Your task to perform on an android device: Open my contact list Image 0: 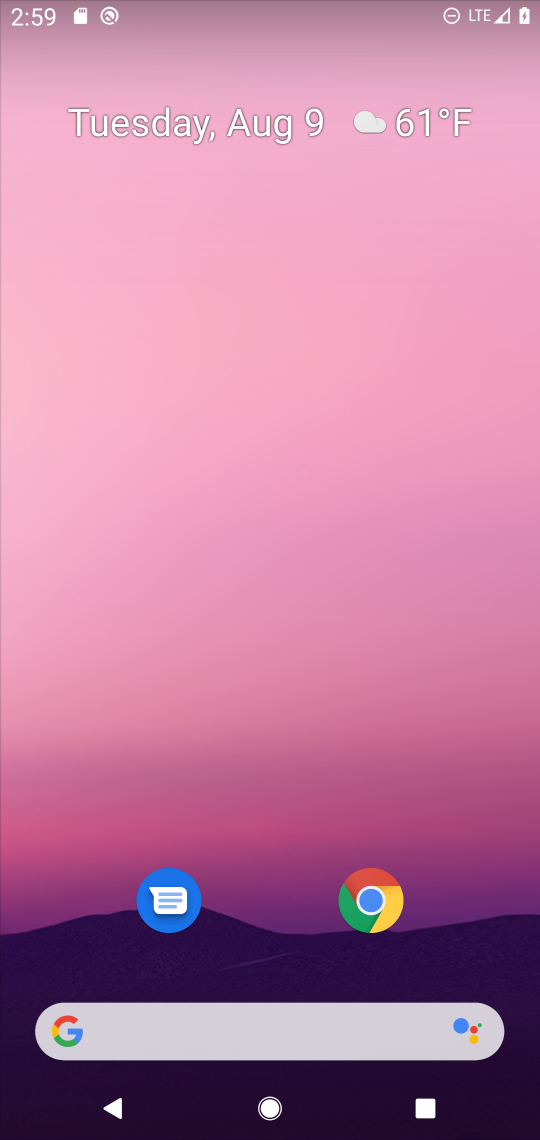
Step 0: press home button
Your task to perform on an android device: Open my contact list Image 1: 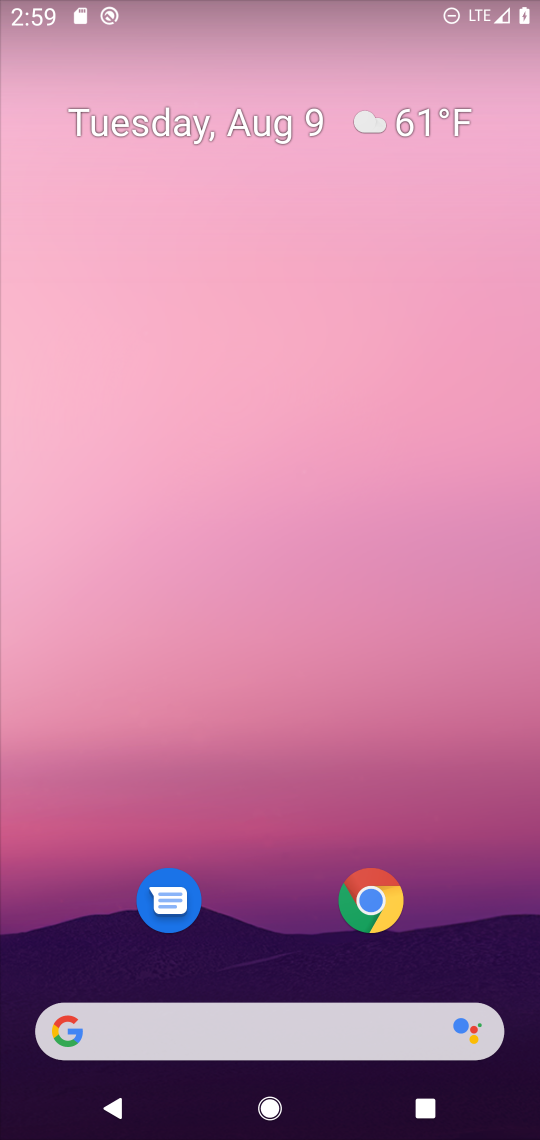
Step 1: drag from (481, 791) to (492, 204)
Your task to perform on an android device: Open my contact list Image 2: 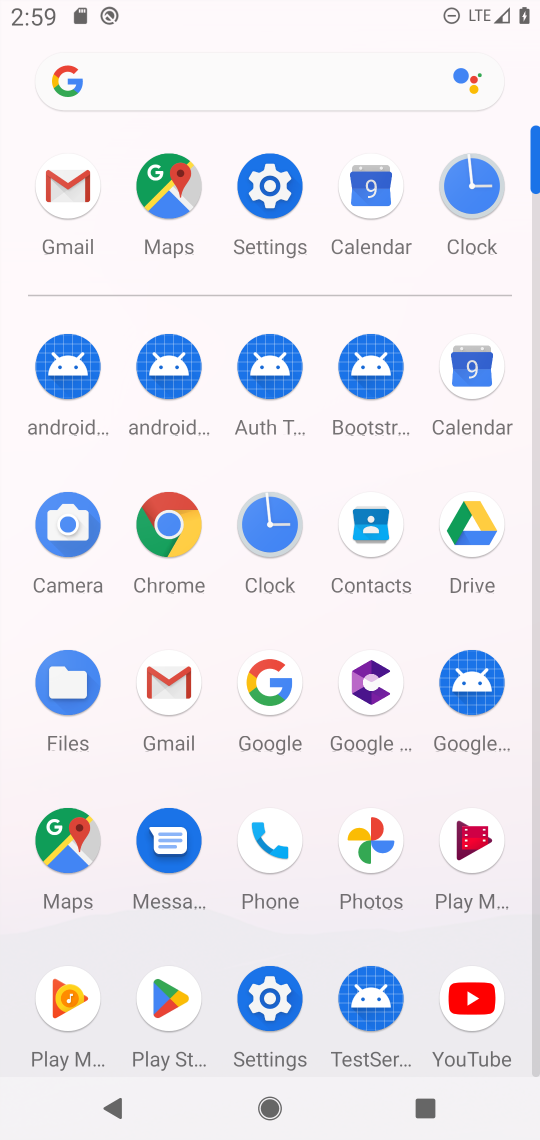
Step 2: click (366, 519)
Your task to perform on an android device: Open my contact list Image 3: 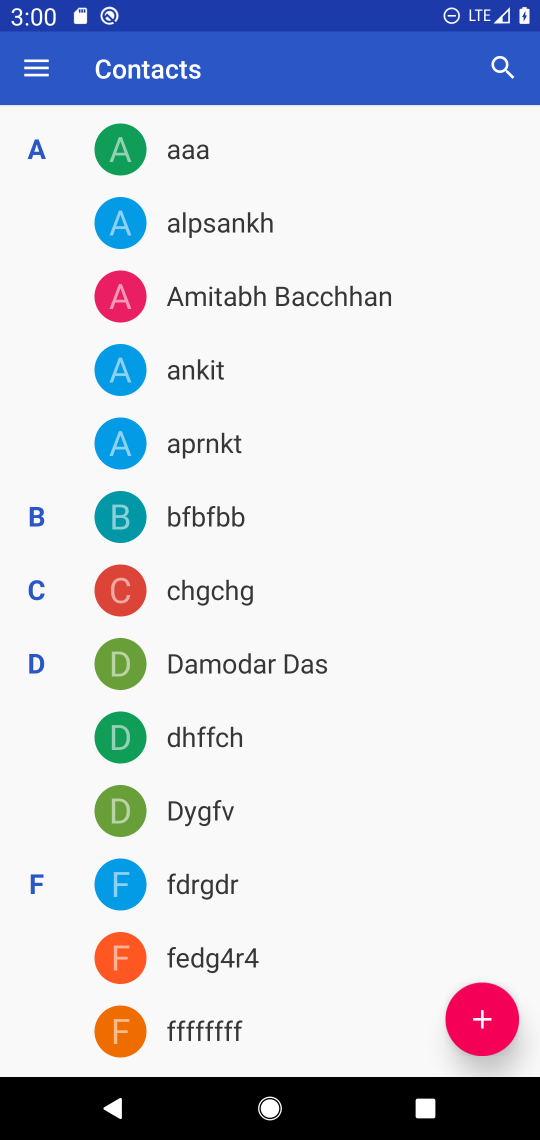
Step 3: task complete